Your task to perform on an android device: Open Youtube and go to the subscriptions tab Image 0: 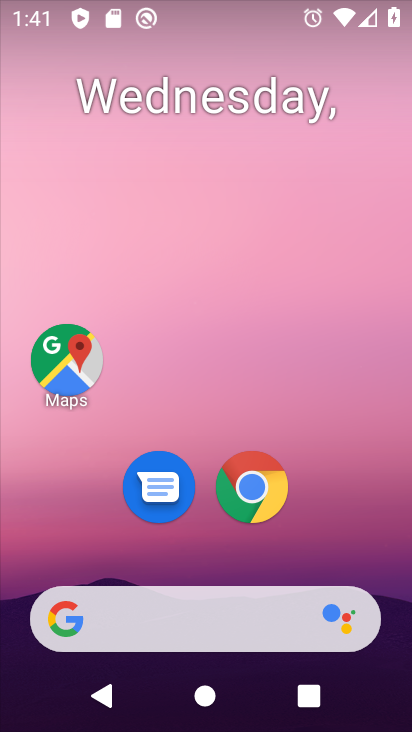
Step 0: drag from (398, 621) to (300, 91)
Your task to perform on an android device: Open Youtube and go to the subscriptions tab Image 1: 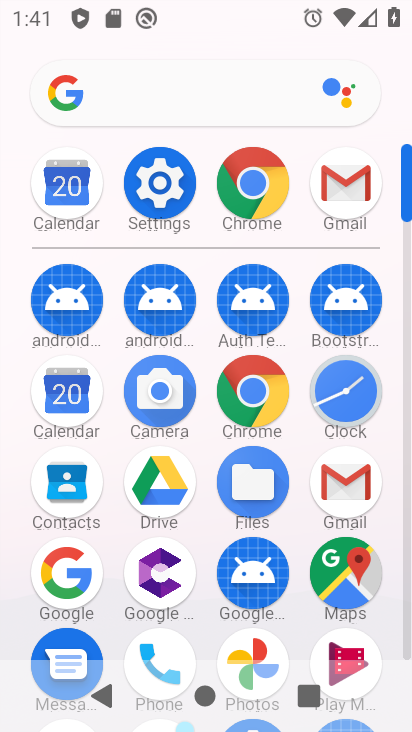
Step 1: click (408, 653)
Your task to perform on an android device: Open Youtube and go to the subscriptions tab Image 2: 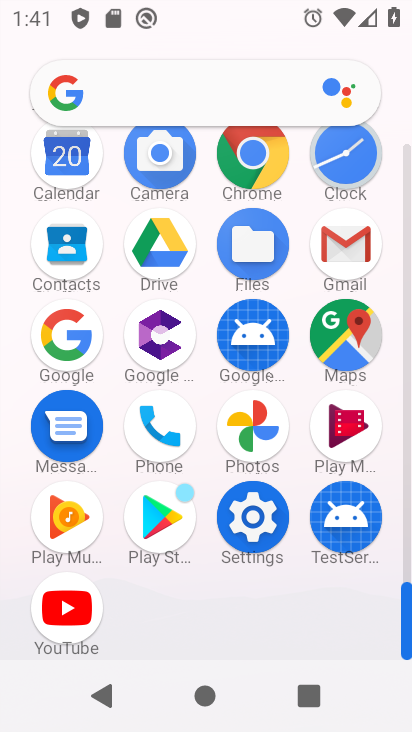
Step 2: click (62, 602)
Your task to perform on an android device: Open Youtube and go to the subscriptions tab Image 3: 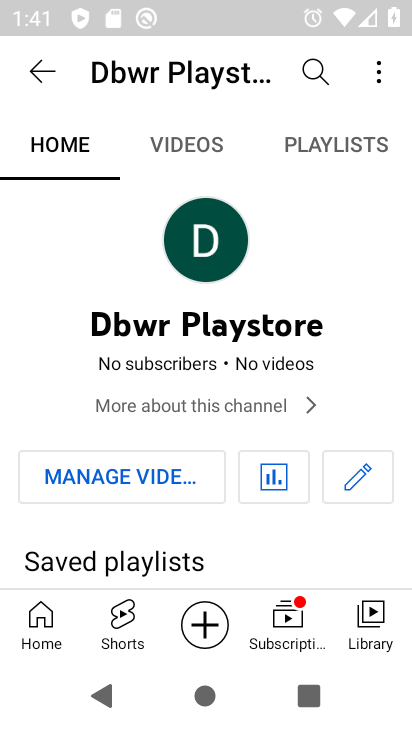
Step 3: click (291, 622)
Your task to perform on an android device: Open Youtube and go to the subscriptions tab Image 4: 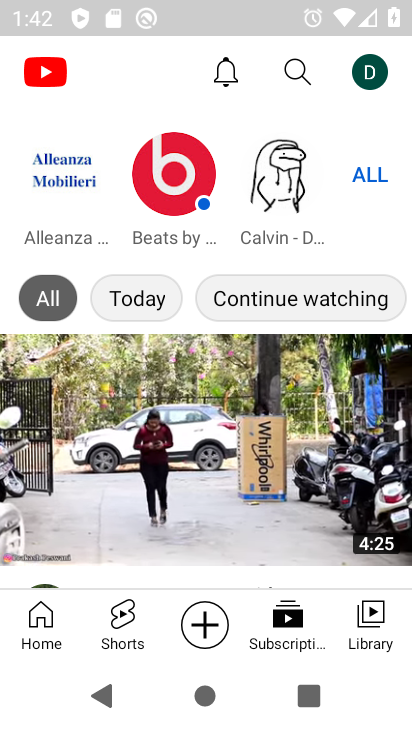
Step 4: task complete